Your task to perform on an android device: turn off location history Image 0: 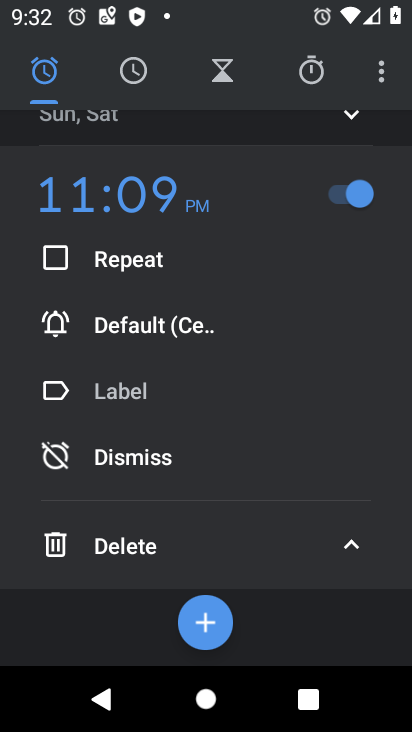
Step 0: press back button
Your task to perform on an android device: turn off location history Image 1: 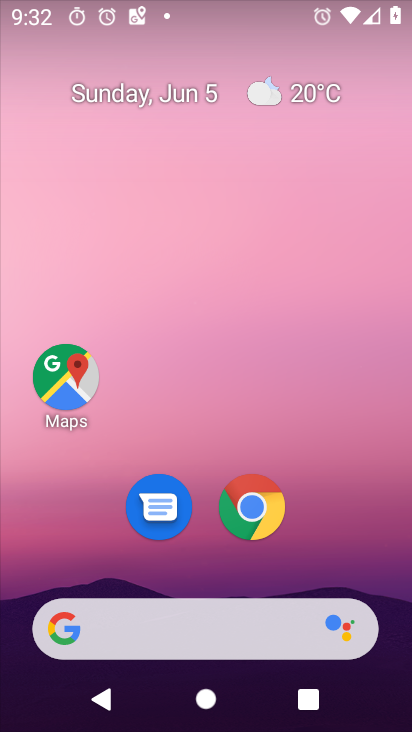
Step 1: drag from (341, 508) to (229, 30)
Your task to perform on an android device: turn off location history Image 2: 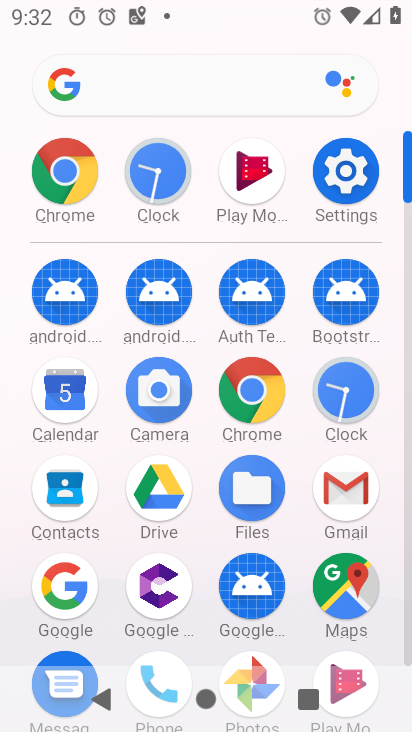
Step 2: click (60, 172)
Your task to perform on an android device: turn off location history Image 3: 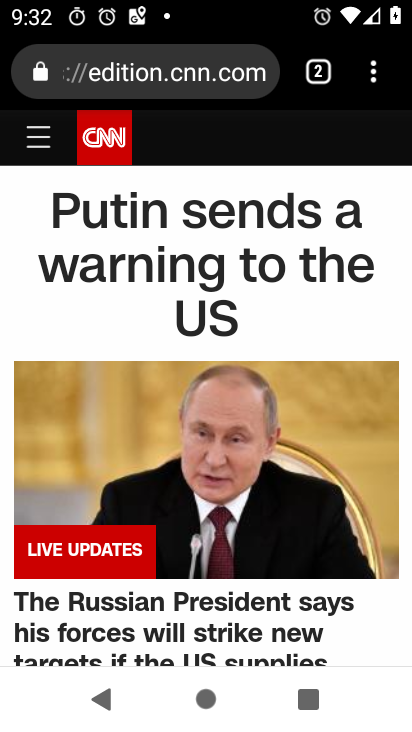
Step 3: drag from (374, 62) to (192, 408)
Your task to perform on an android device: turn off location history Image 4: 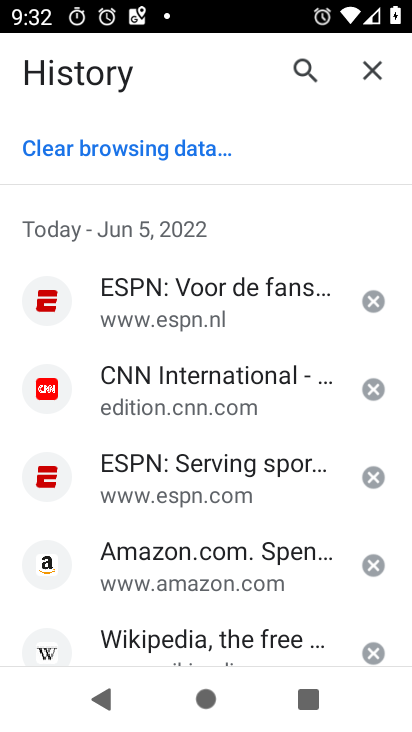
Step 4: click (374, 61)
Your task to perform on an android device: turn off location history Image 5: 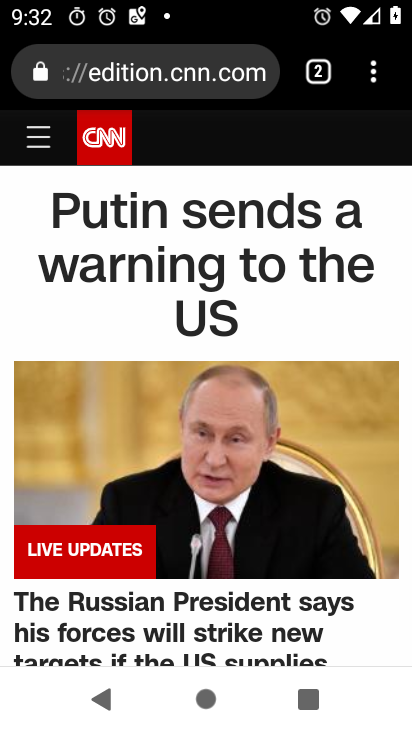
Step 5: drag from (375, 82) to (196, 505)
Your task to perform on an android device: turn off location history Image 6: 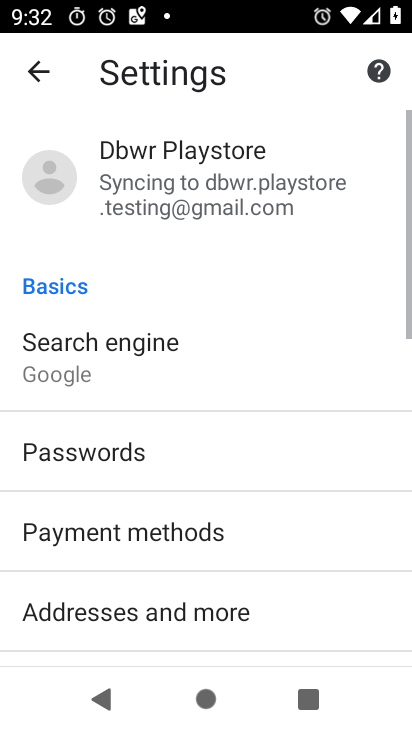
Step 6: drag from (254, 565) to (314, 207)
Your task to perform on an android device: turn off location history Image 7: 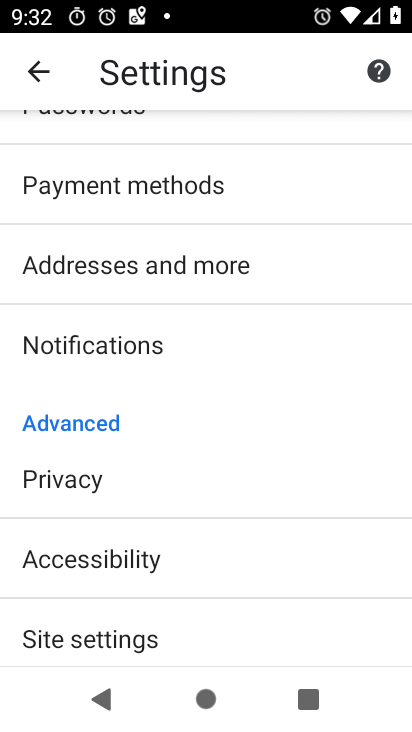
Step 7: drag from (203, 581) to (238, 249)
Your task to perform on an android device: turn off location history Image 8: 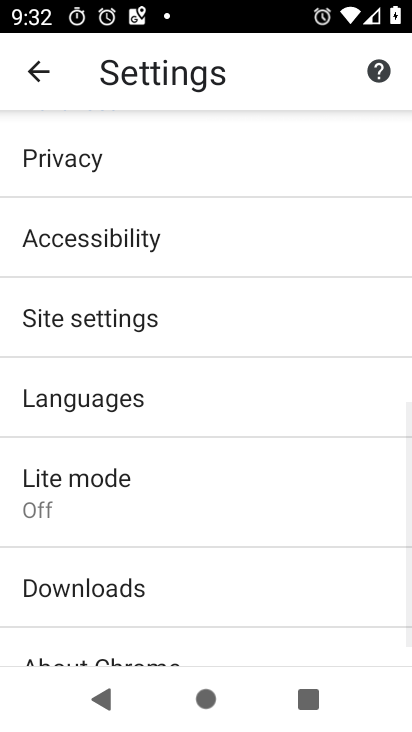
Step 8: click (149, 295)
Your task to perform on an android device: turn off location history Image 9: 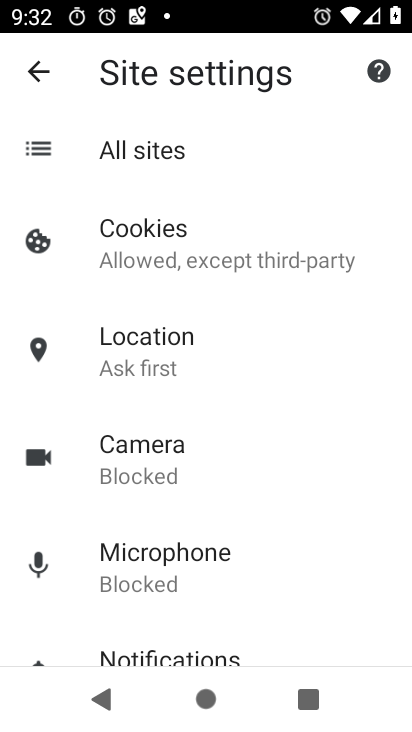
Step 9: drag from (252, 539) to (279, 165)
Your task to perform on an android device: turn off location history Image 10: 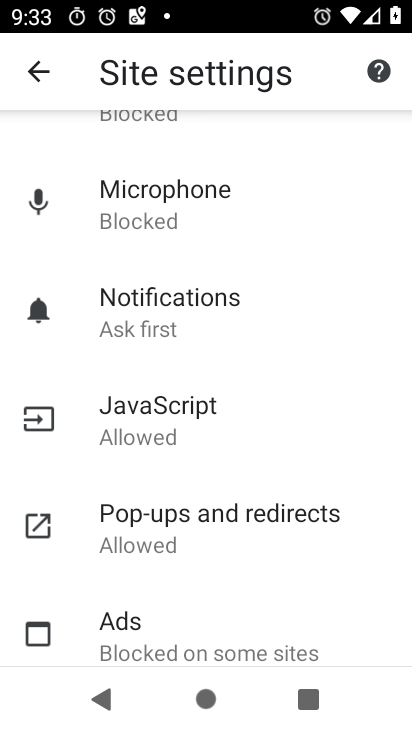
Step 10: drag from (216, 550) to (254, 145)
Your task to perform on an android device: turn off location history Image 11: 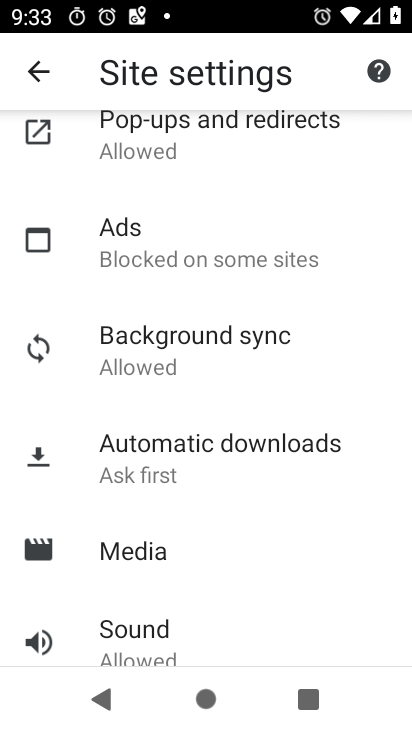
Step 11: drag from (241, 555) to (282, 132)
Your task to perform on an android device: turn off location history Image 12: 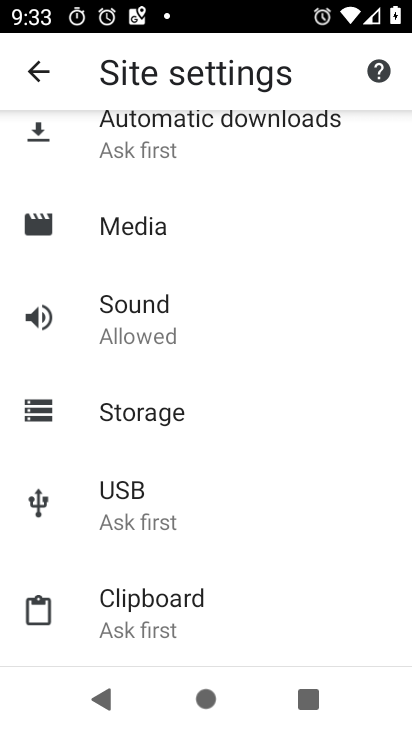
Step 12: drag from (277, 155) to (238, 593)
Your task to perform on an android device: turn off location history Image 13: 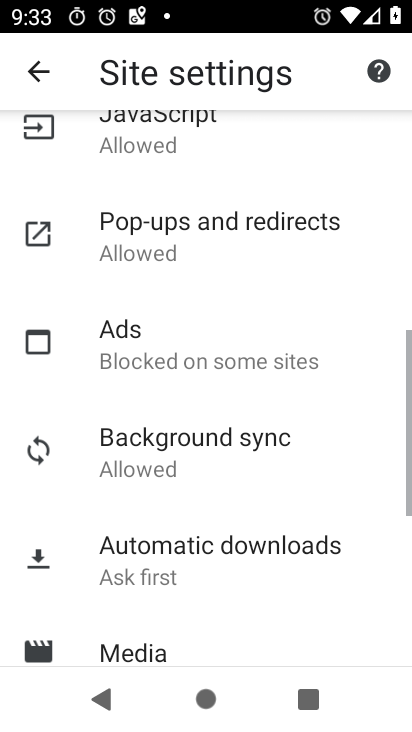
Step 13: drag from (272, 236) to (221, 605)
Your task to perform on an android device: turn off location history Image 14: 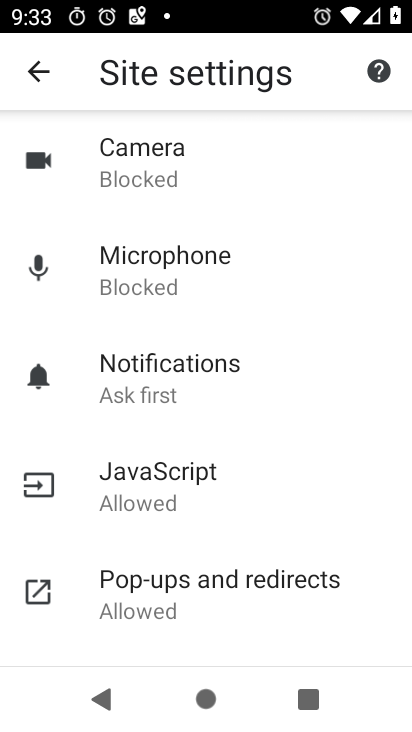
Step 14: drag from (244, 232) to (222, 524)
Your task to perform on an android device: turn off location history Image 15: 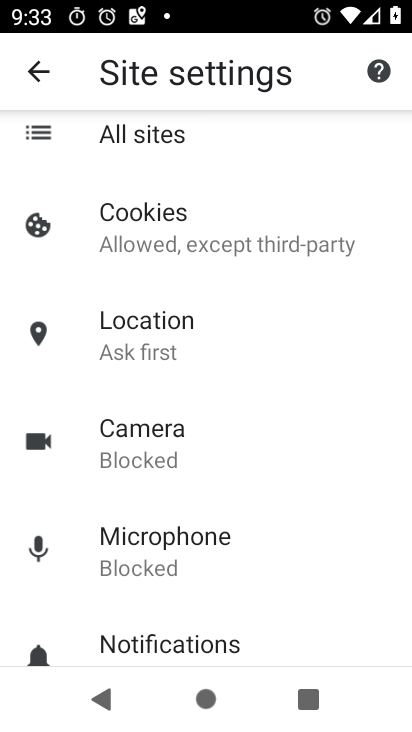
Step 15: click (194, 153)
Your task to perform on an android device: turn off location history Image 16: 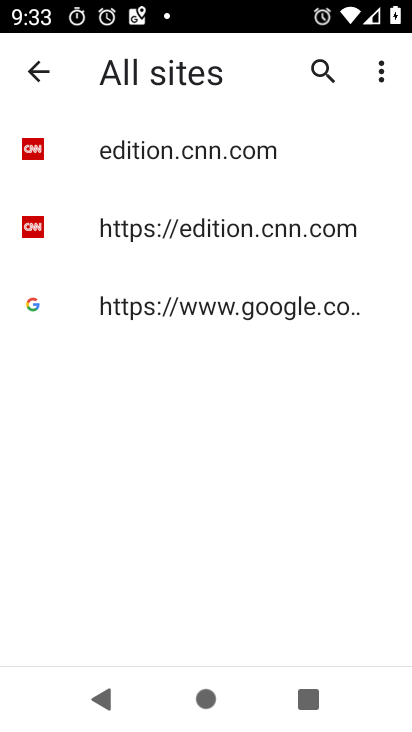
Step 16: click (44, 69)
Your task to perform on an android device: turn off location history Image 17: 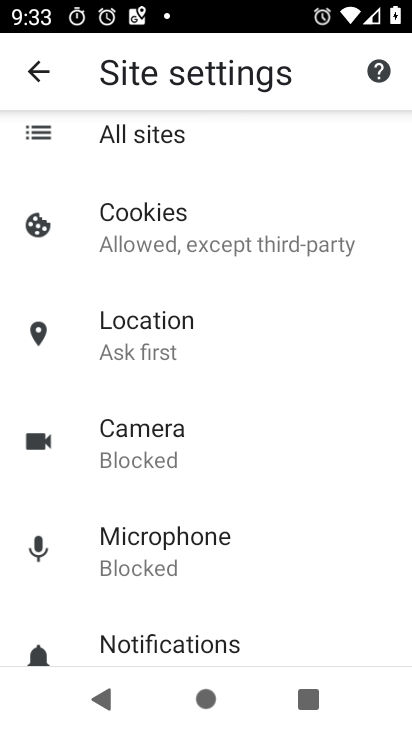
Step 17: task complete